Your task to perform on an android device: Go to internet settings Image 0: 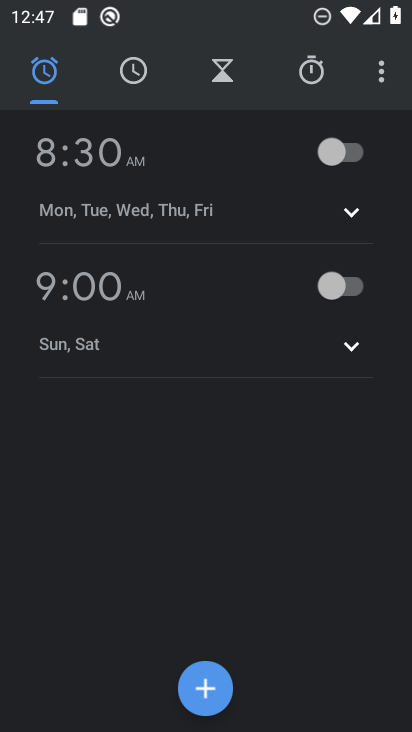
Step 0: press back button
Your task to perform on an android device: Go to internet settings Image 1: 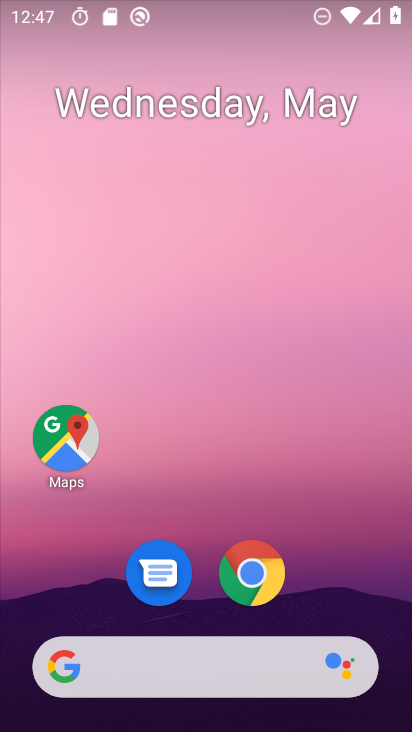
Step 1: drag from (337, 573) to (236, 9)
Your task to perform on an android device: Go to internet settings Image 2: 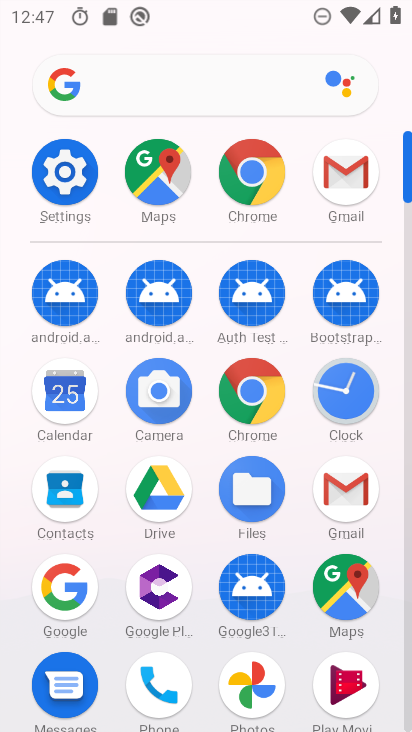
Step 2: click (63, 166)
Your task to perform on an android device: Go to internet settings Image 3: 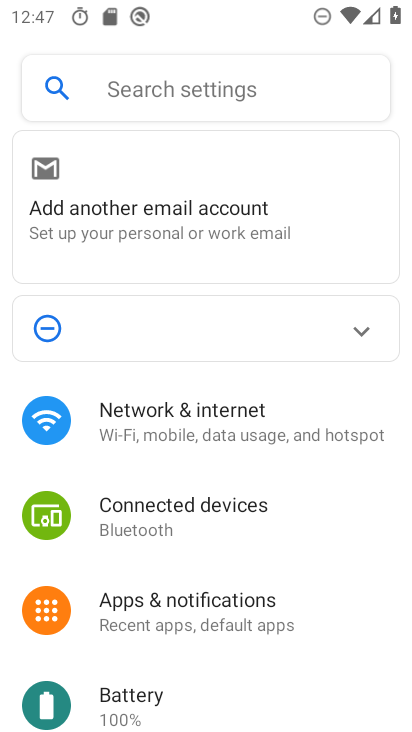
Step 3: click (281, 416)
Your task to perform on an android device: Go to internet settings Image 4: 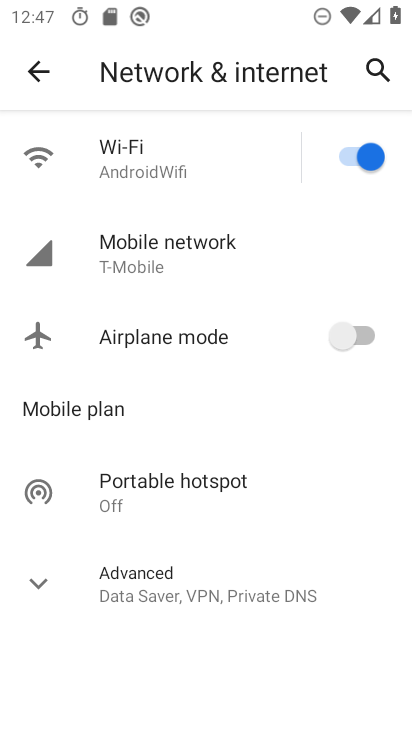
Step 4: click (59, 589)
Your task to perform on an android device: Go to internet settings Image 5: 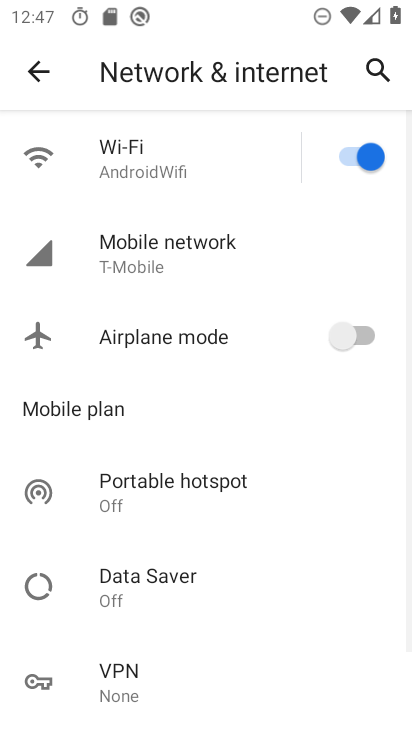
Step 5: task complete